Your task to perform on an android device: Is it going to rain this weekend? Image 0: 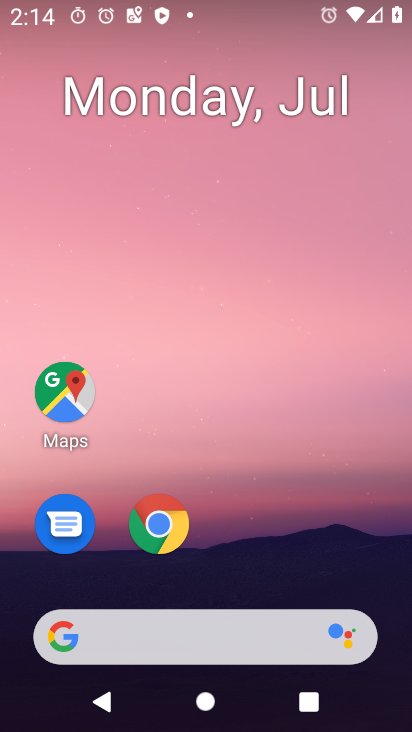
Step 0: press home button
Your task to perform on an android device: Is it going to rain this weekend? Image 1: 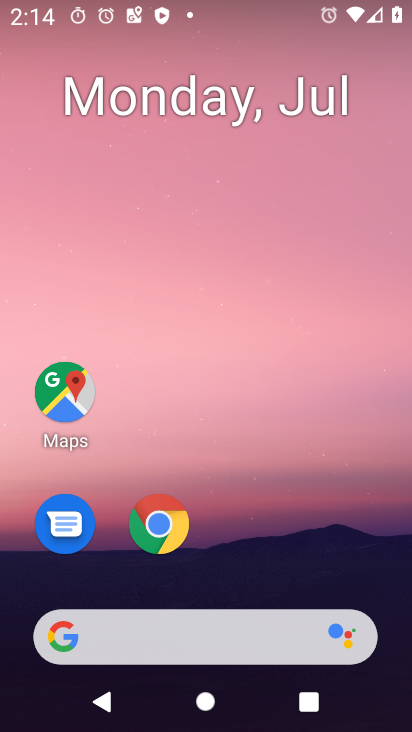
Step 1: click (67, 638)
Your task to perform on an android device: Is it going to rain this weekend? Image 2: 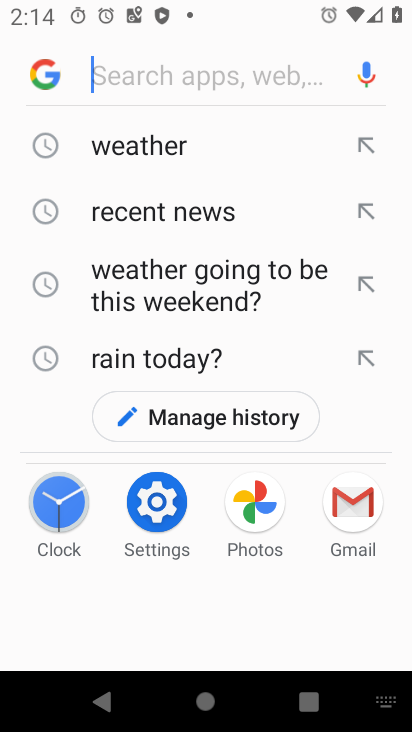
Step 2: type " rain this weekend?"
Your task to perform on an android device: Is it going to rain this weekend? Image 3: 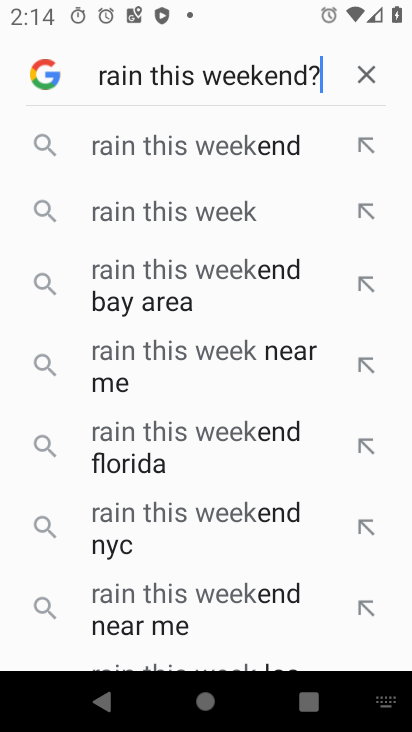
Step 3: press enter
Your task to perform on an android device: Is it going to rain this weekend? Image 4: 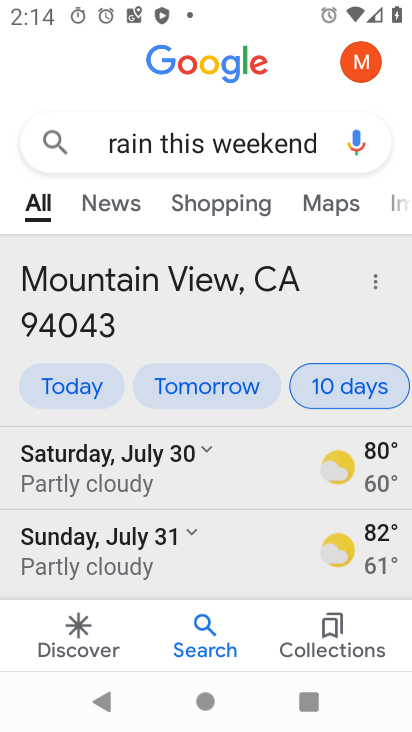
Step 4: task complete